Your task to perform on an android device: Open settings Image 0: 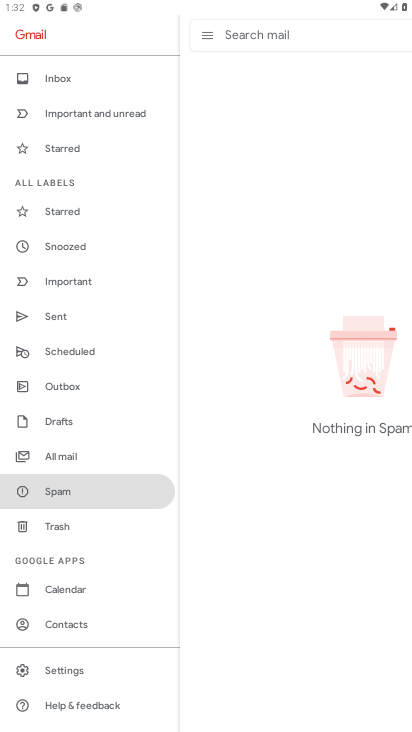
Step 0: press home button
Your task to perform on an android device: Open settings Image 1: 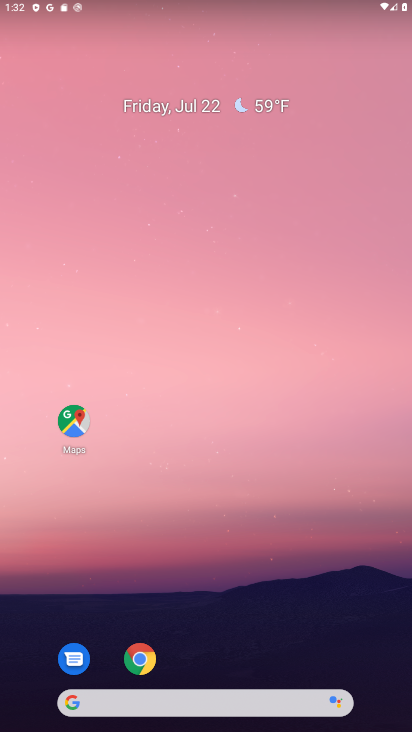
Step 1: drag from (314, 551) to (198, 1)
Your task to perform on an android device: Open settings Image 2: 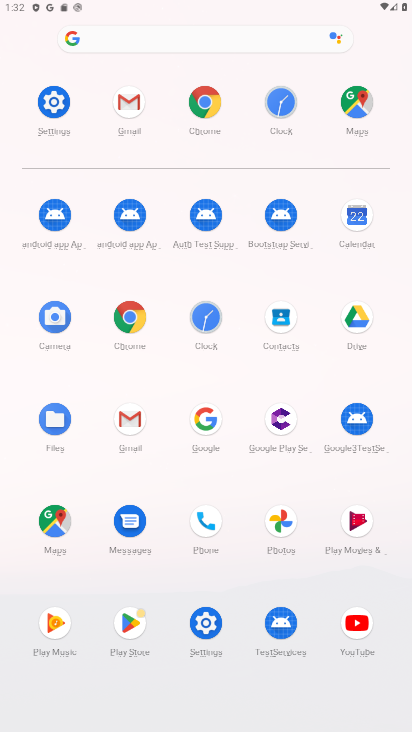
Step 2: click (48, 102)
Your task to perform on an android device: Open settings Image 3: 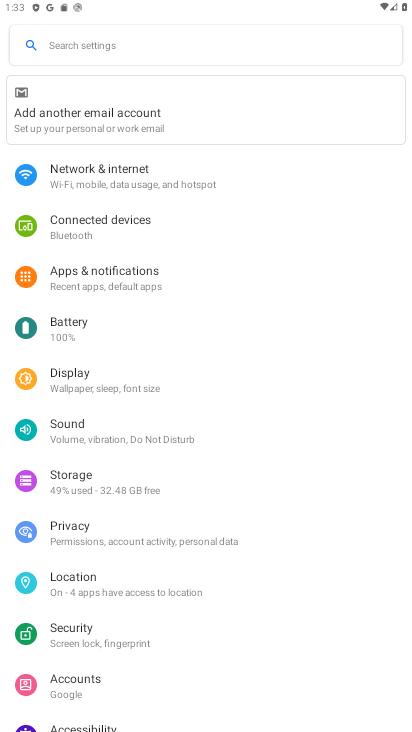
Step 3: task complete